Your task to perform on an android device: turn on translation in the chrome app Image 0: 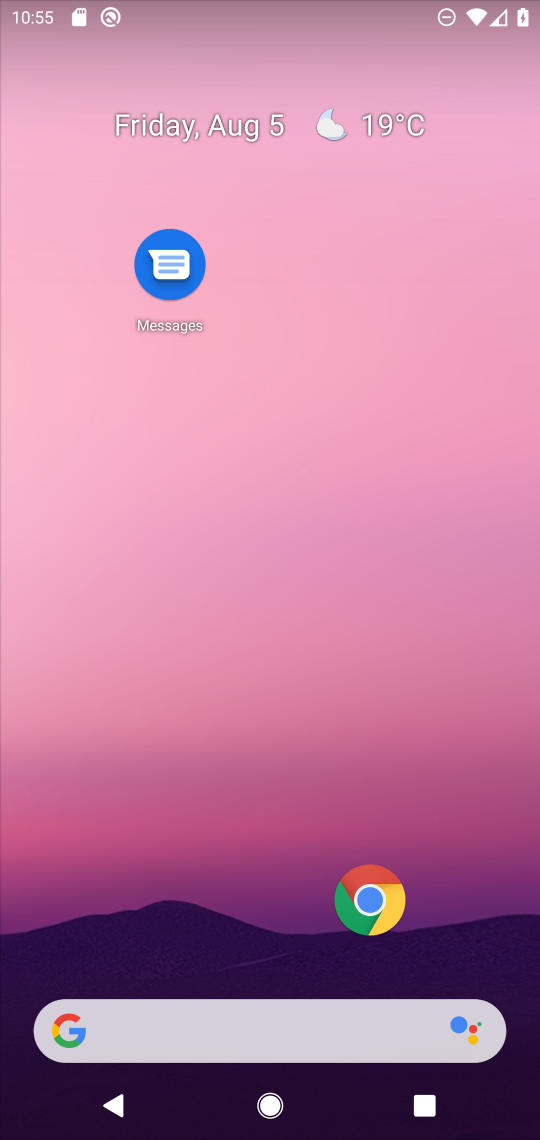
Step 0: press home button
Your task to perform on an android device: turn on translation in the chrome app Image 1: 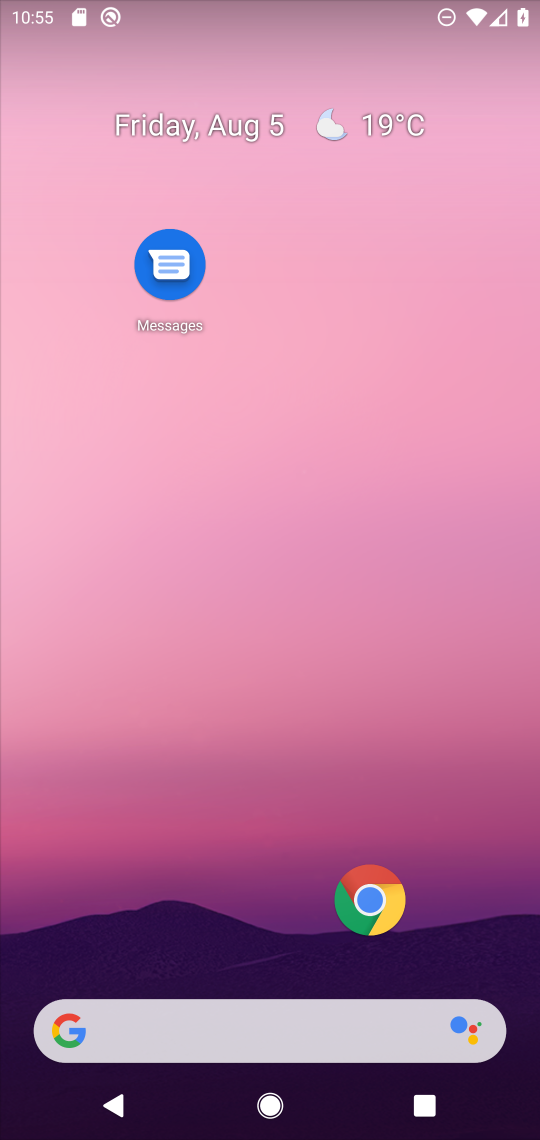
Step 1: press home button
Your task to perform on an android device: turn on translation in the chrome app Image 2: 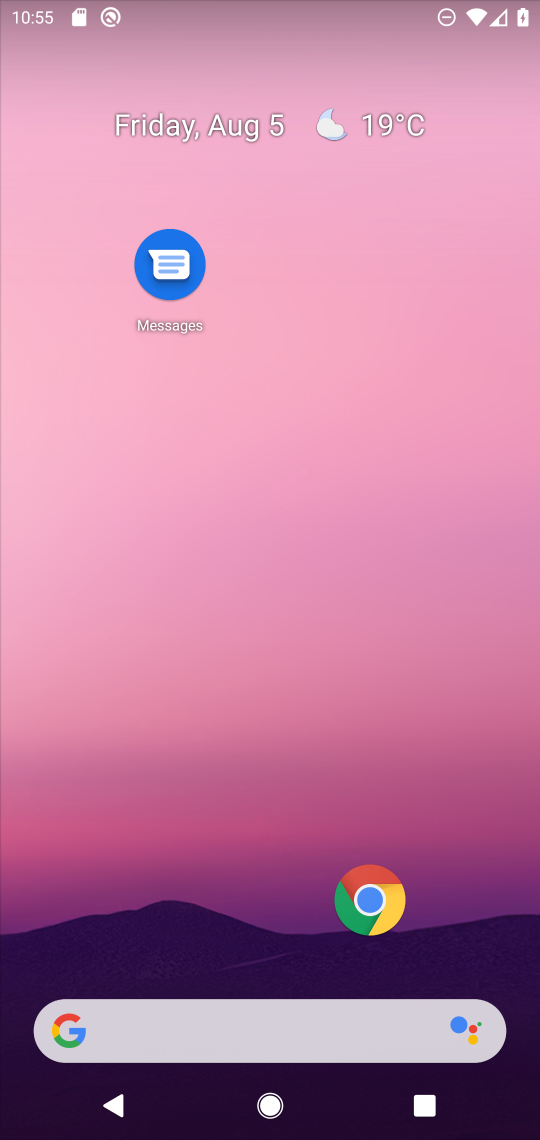
Step 2: click (379, 901)
Your task to perform on an android device: turn on translation in the chrome app Image 3: 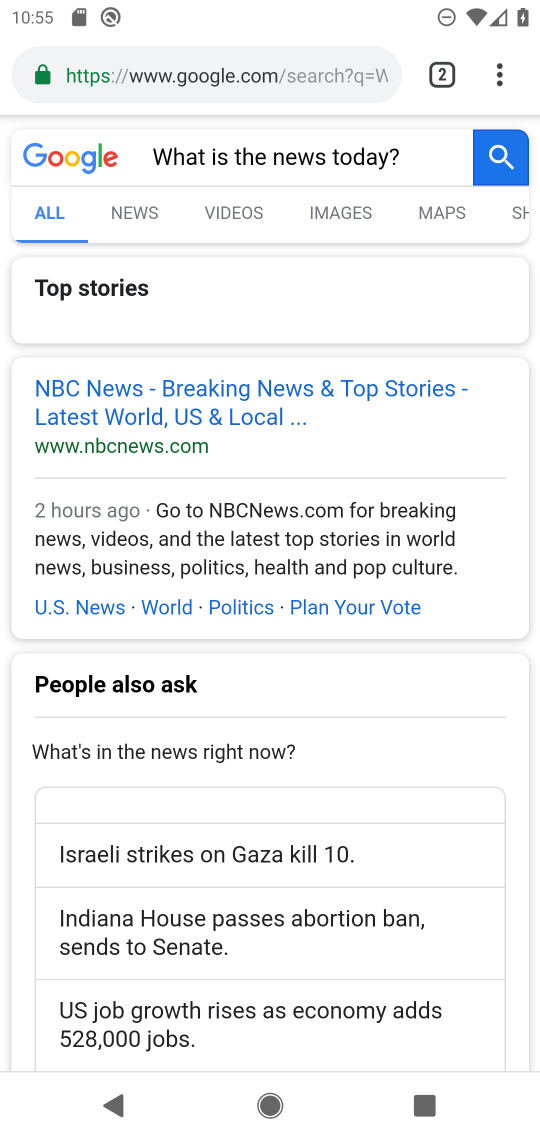
Step 3: drag from (506, 64) to (230, 868)
Your task to perform on an android device: turn on translation in the chrome app Image 4: 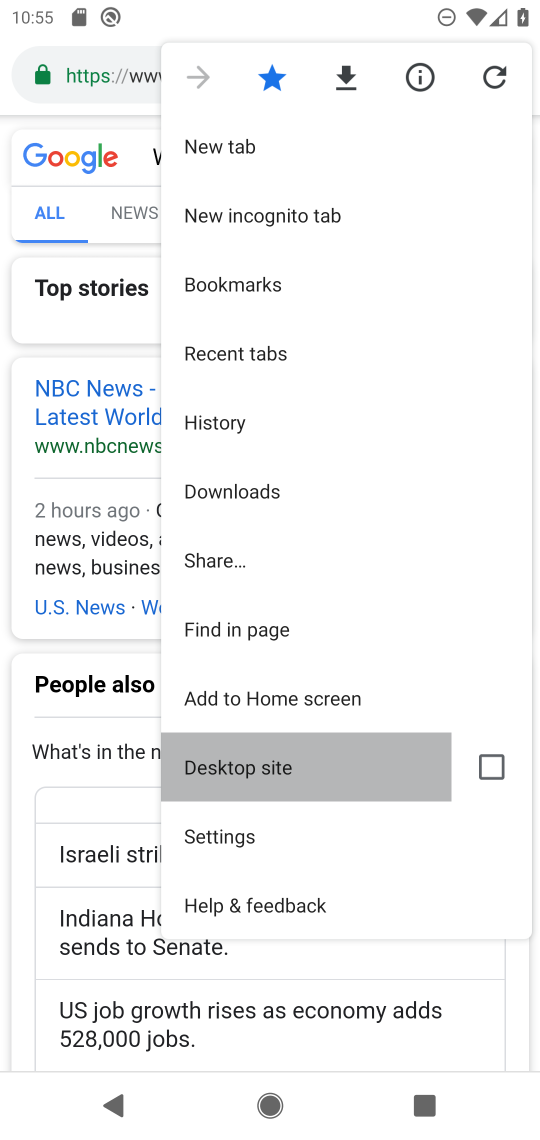
Step 4: click (208, 845)
Your task to perform on an android device: turn on translation in the chrome app Image 5: 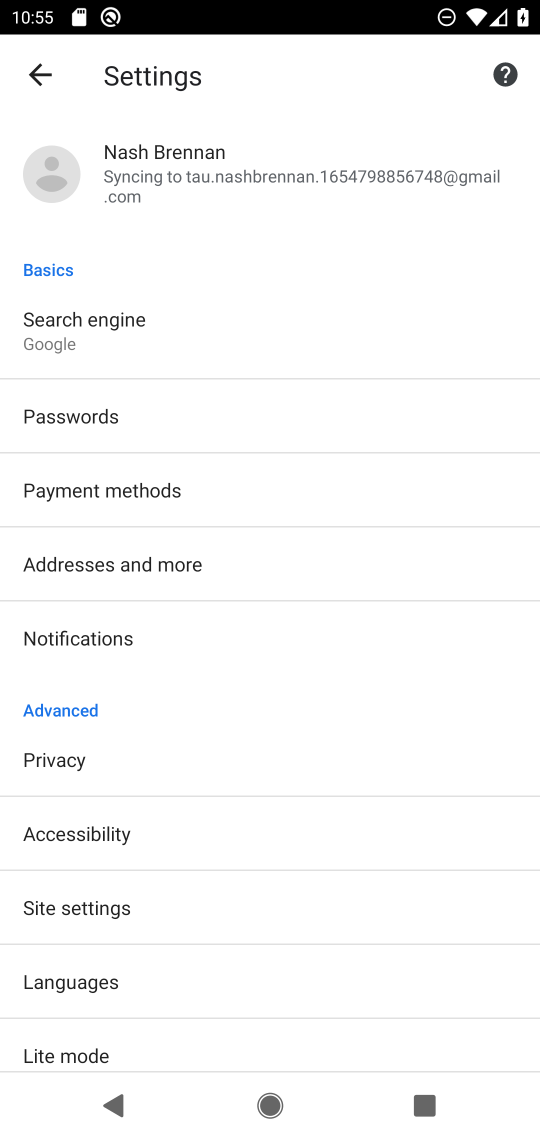
Step 5: click (94, 971)
Your task to perform on an android device: turn on translation in the chrome app Image 6: 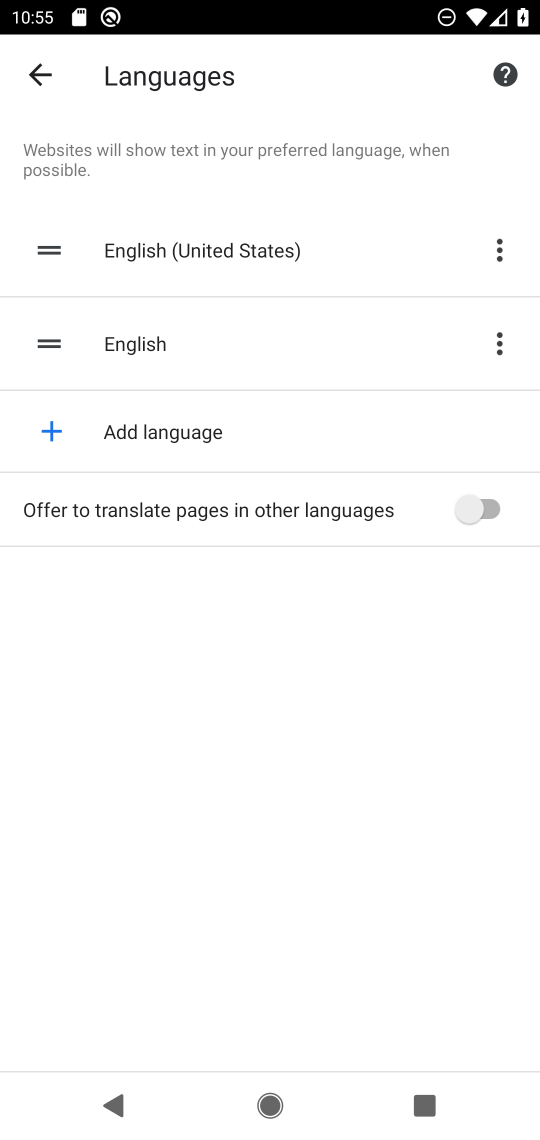
Step 6: click (171, 525)
Your task to perform on an android device: turn on translation in the chrome app Image 7: 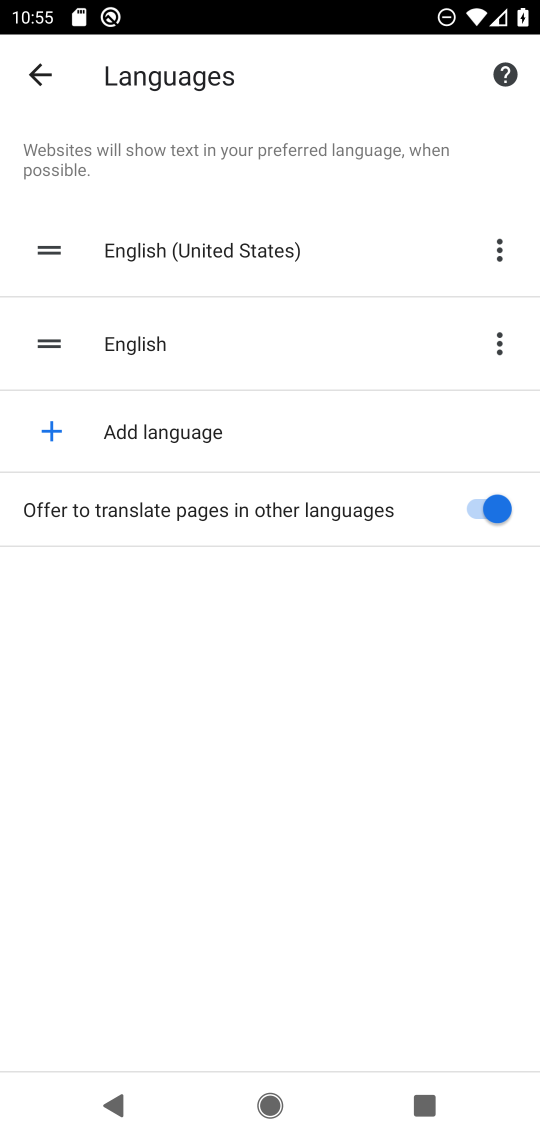
Step 7: task complete